Your task to perform on an android device: delete the emails in spam in the gmail app Image 0: 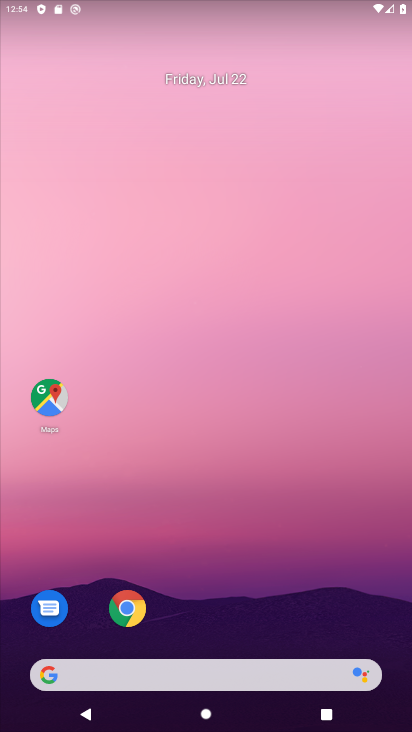
Step 0: drag from (363, 614) to (298, 50)
Your task to perform on an android device: delete the emails in spam in the gmail app Image 1: 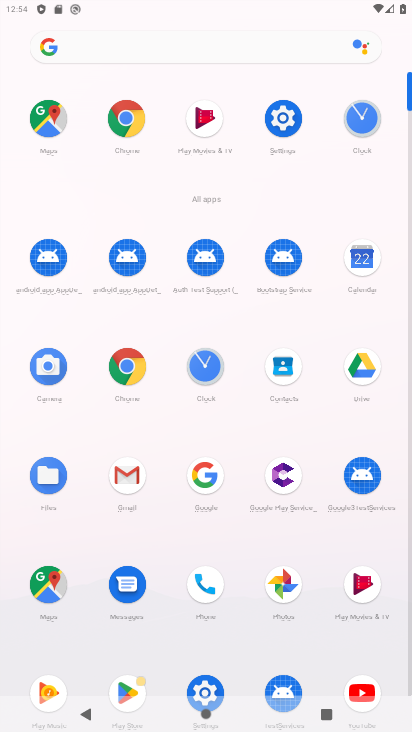
Step 1: click (122, 477)
Your task to perform on an android device: delete the emails in spam in the gmail app Image 2: 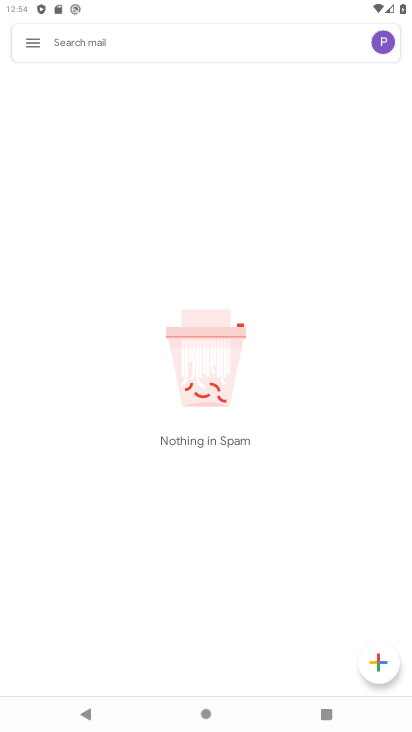
Step 2: click (29, 40)
Your task to perform on an android device: delete the emails in spam in the gmail app Image 3: 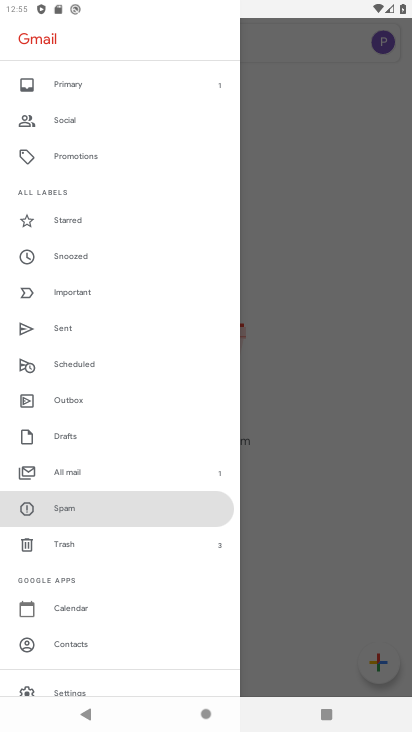
Step 3: click (302, 204)
Your task to perform on an android device: delete the emails in spam in the gmail app Image 4: 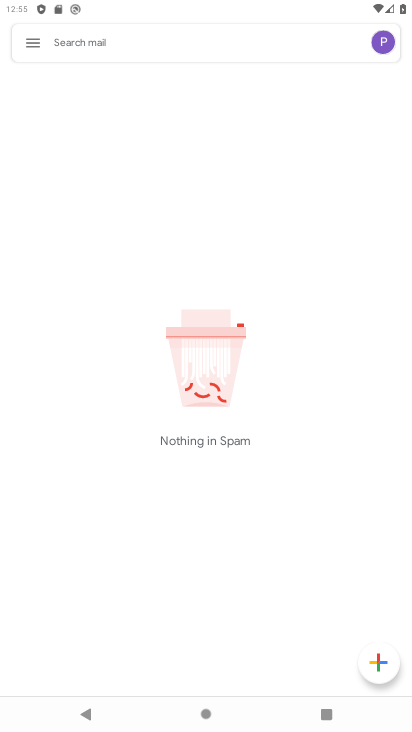
Step 4: task complete